Your task to perform on an android device: open sync settings in chrome Image 0: 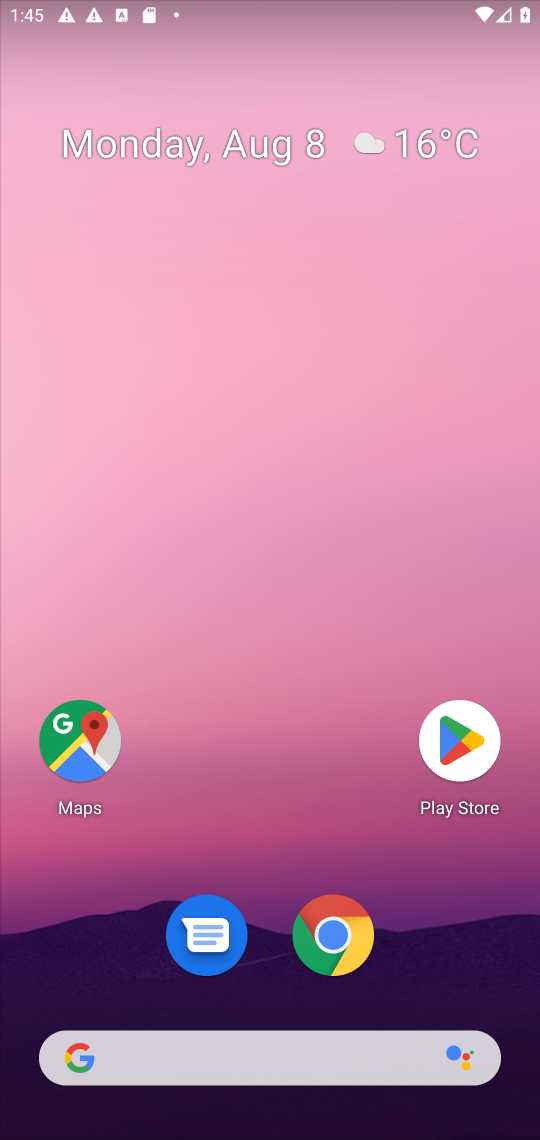
Step 0: drag from (343, 1065) to (274, 84)
Your task to perform on an android device: open sync settings in chrome Image 1: 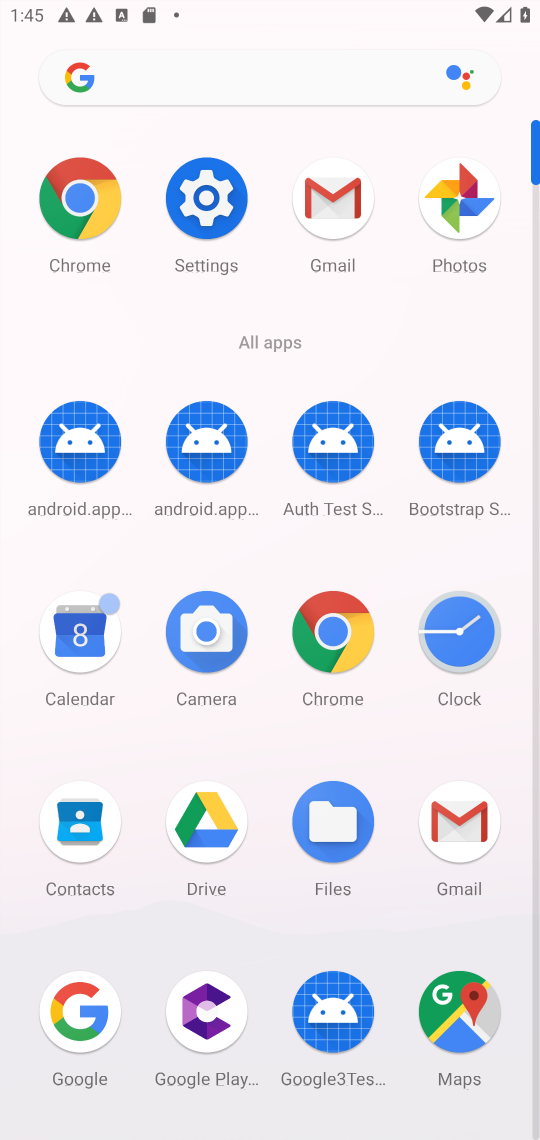
Step 1: click (315, 641)
Your task to perform on an android device: open sync settings in chrome Image 2: 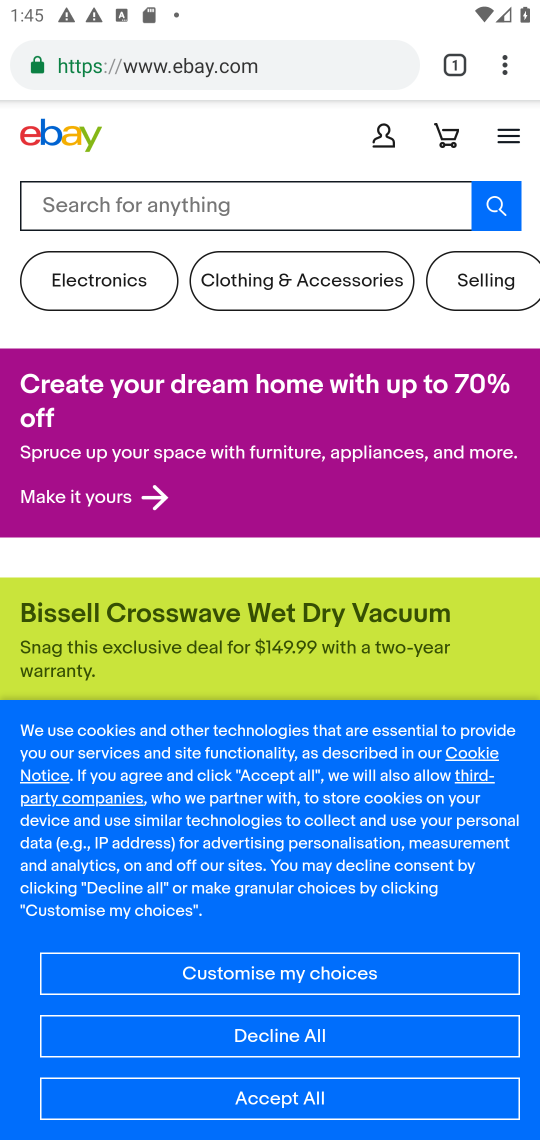
Step 2: click (512, 68)
Your task to perform on an android device: open sync settings in chrome Image 3: 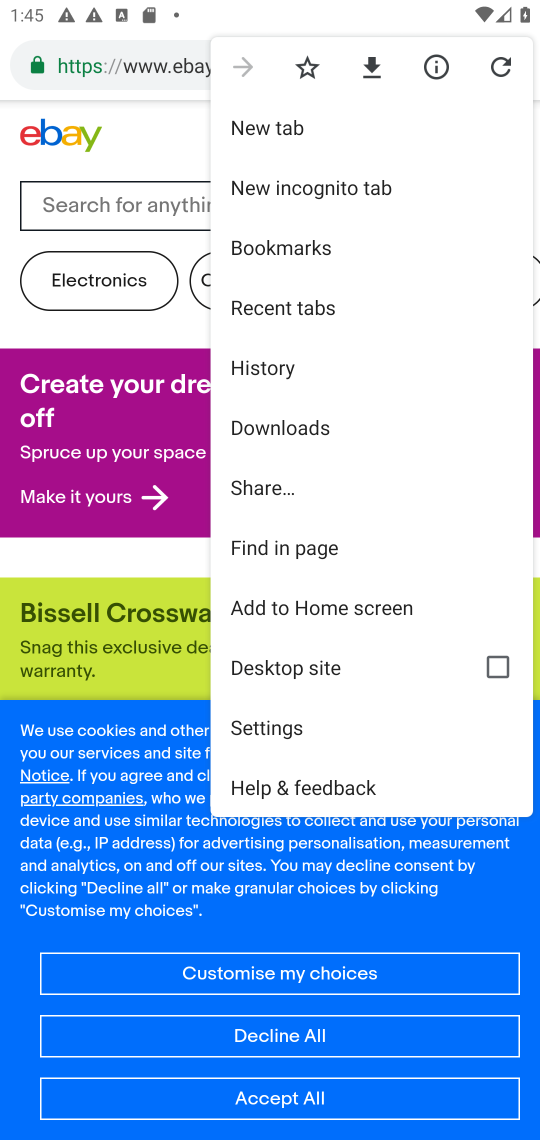
Step 3: click (299, 724)
Your task to perform on an android device: open sync settings in chrome Image 4: 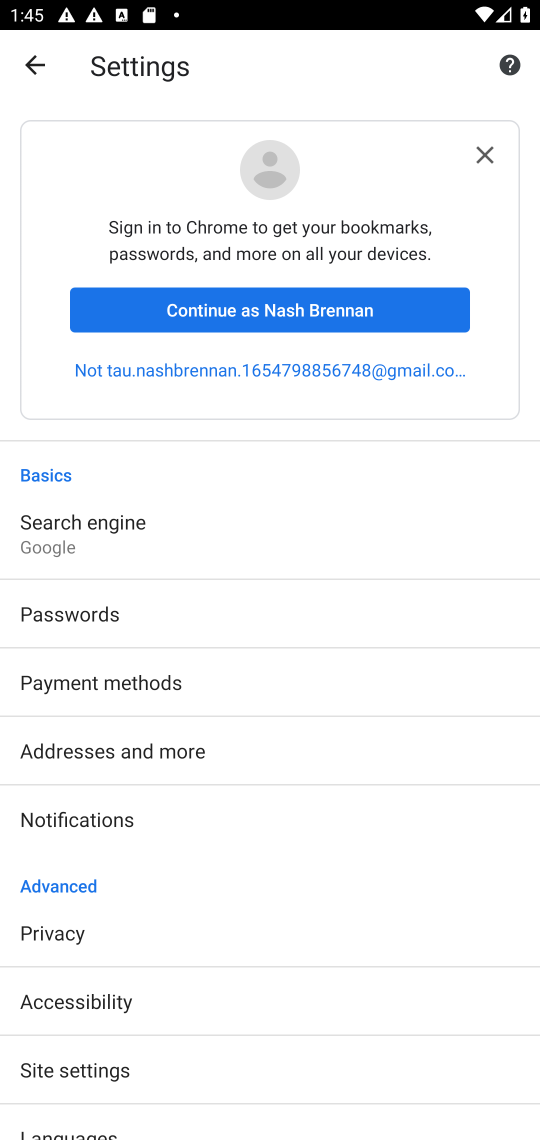
Step 4: drag from (244, 1048) to (223, 525)
Your task to perform on an android device: open sync settings in chrome Image 5: 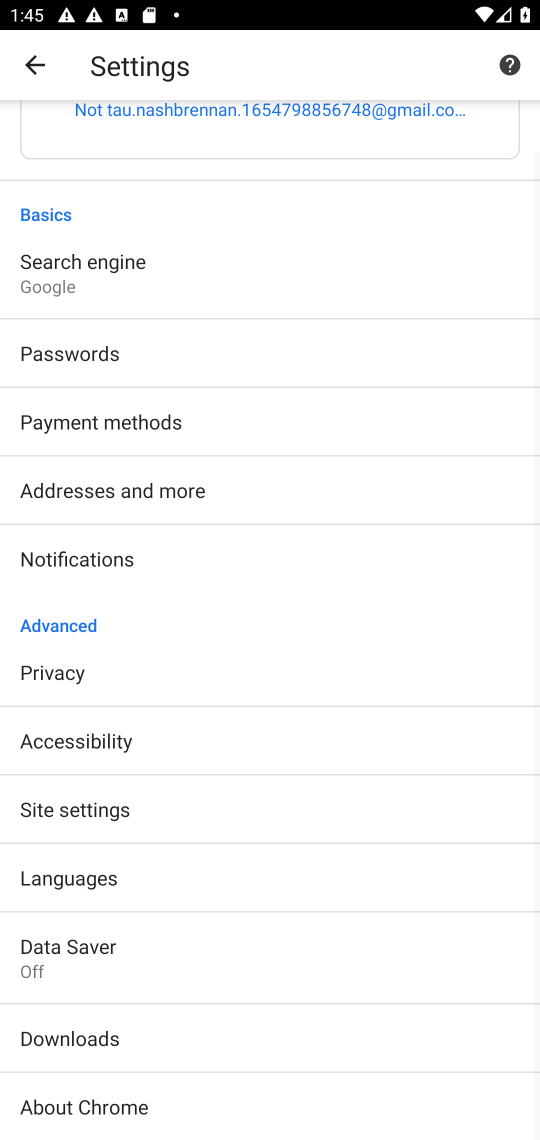
Step 5: click (153, 830)
Your task to perform on an android device: open sync settings in chrome Image 6: 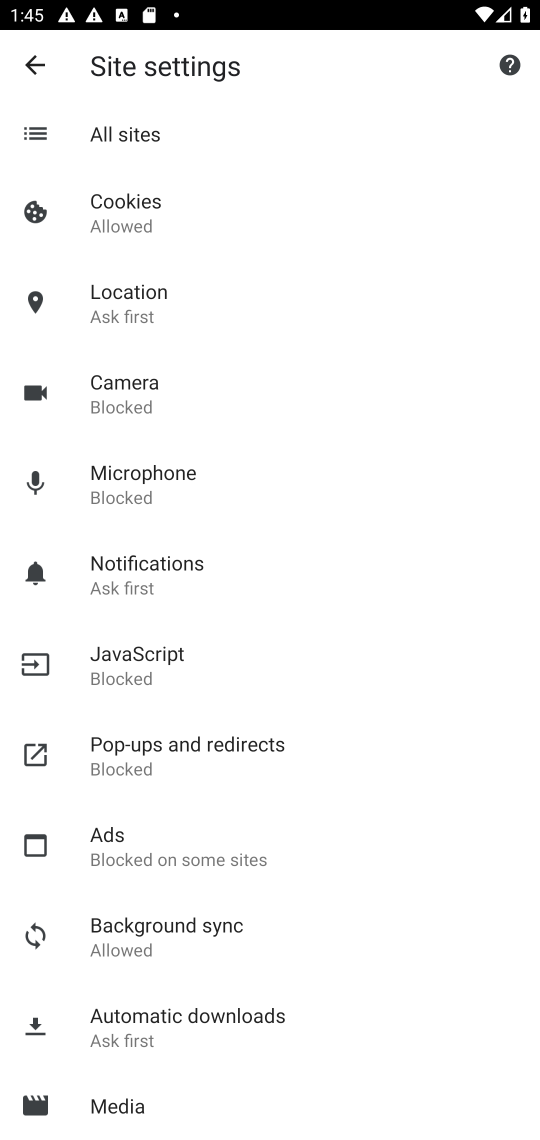
Step 6: click (221, 945)
Your task to perform on an android device: open sync settings in chrome Image 7: 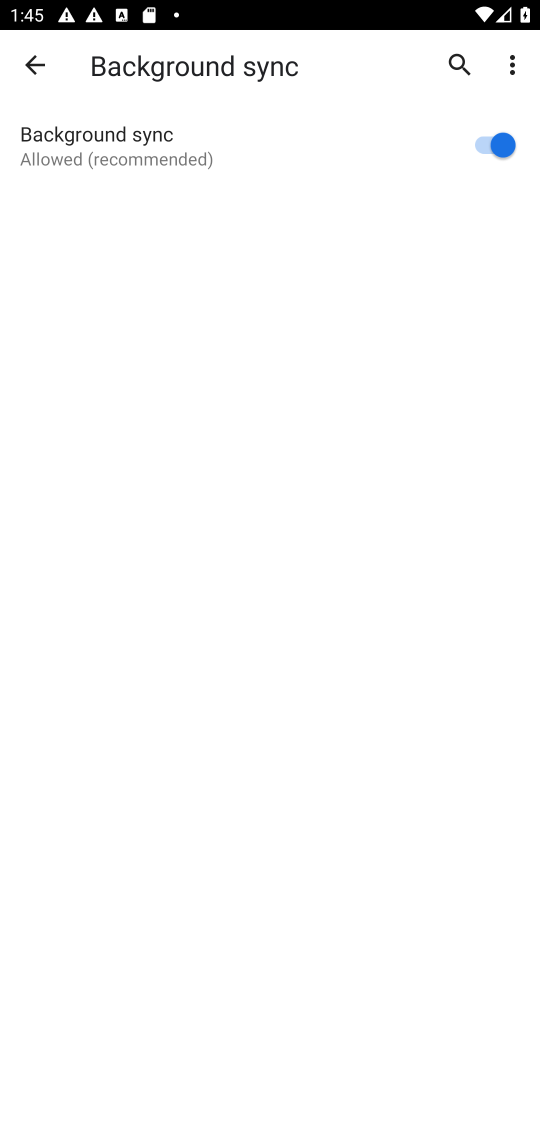
Step 7: click (490, 137)
Your task to perform on an android device: open sync settings in chrome Image 8: 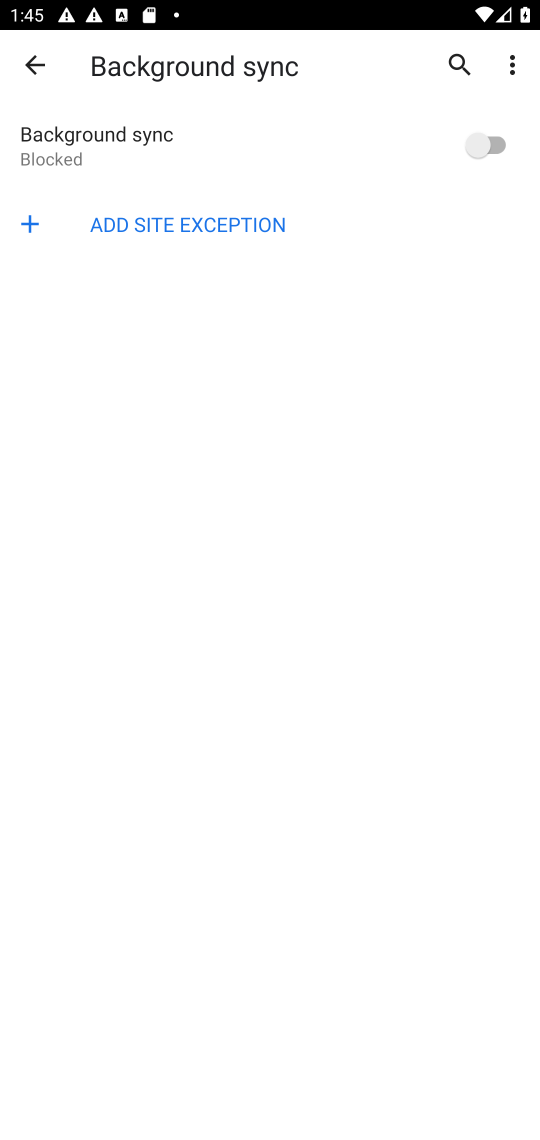
Step 8: task complete